Your task to perform on an android device: Open location settings Image 0: 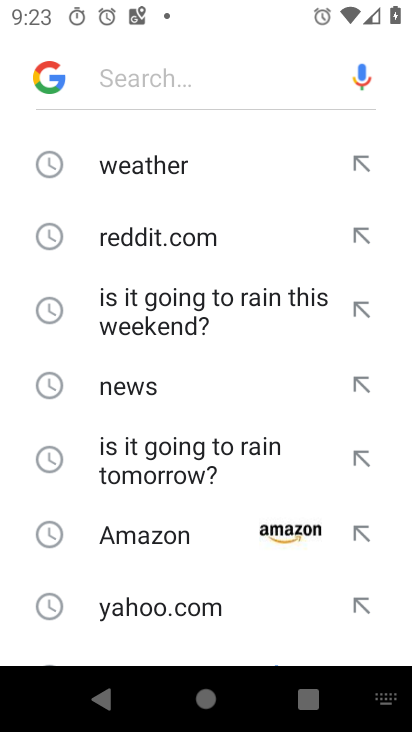
Step 0: press back button
Your task to perform on an android device: Open location settings Image 1: 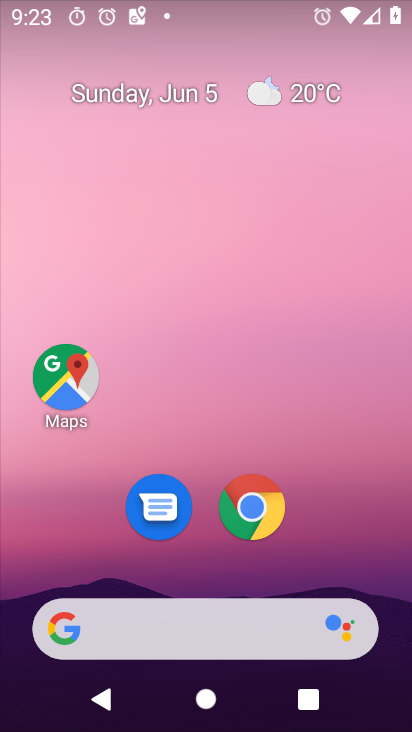
Step 1: drag from (328, 531) to (227, 19)
Your task to perform on an android device: Open location settings Image 2: 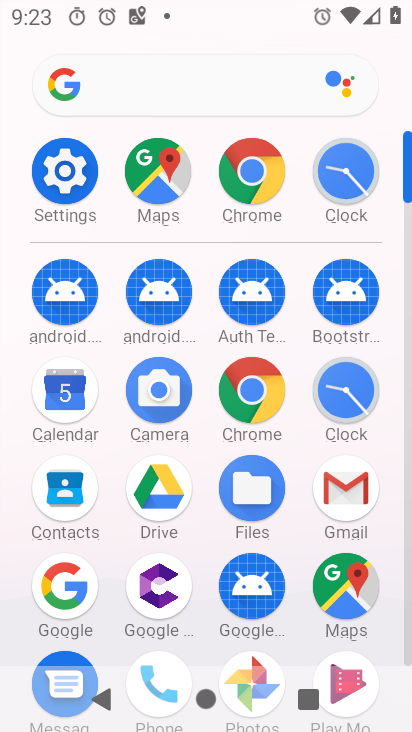
Step 2: drag from (10, 559) to (3, 284)
Your task to perform on an android device: Open location settings Image 3: 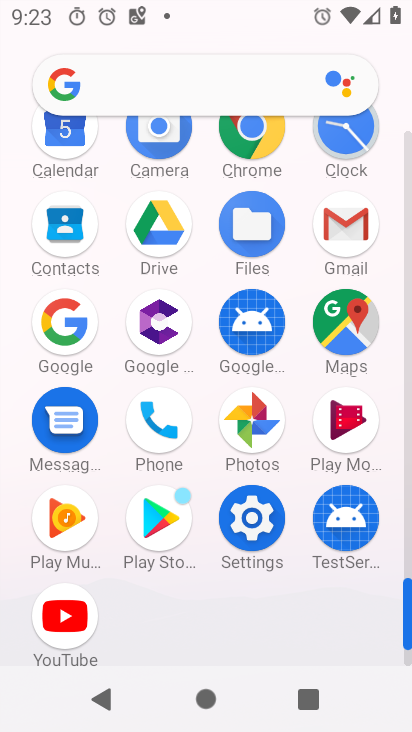
Step 3: click (250, 515)
Your task to perform on an android device: Open location settings Image 4: 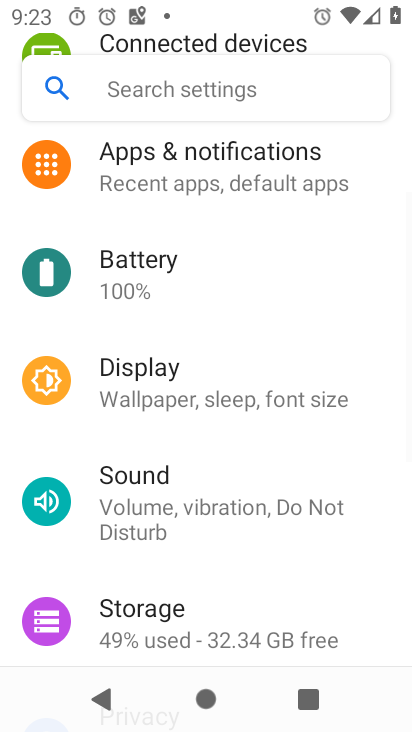
Step 4: drag from (244, 197) to (281, 598)
Your task to perform on an android device: Open location settings Image 5: 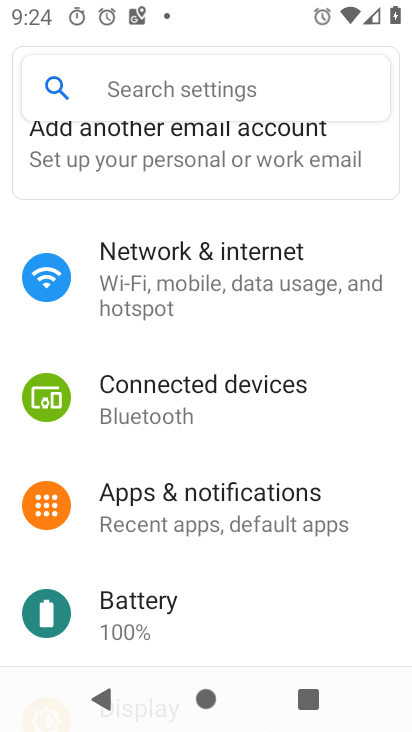
Step 5: drag from (253, 587) to (233, 264)
Your task to perform on an android device: Open location settings Image 6: 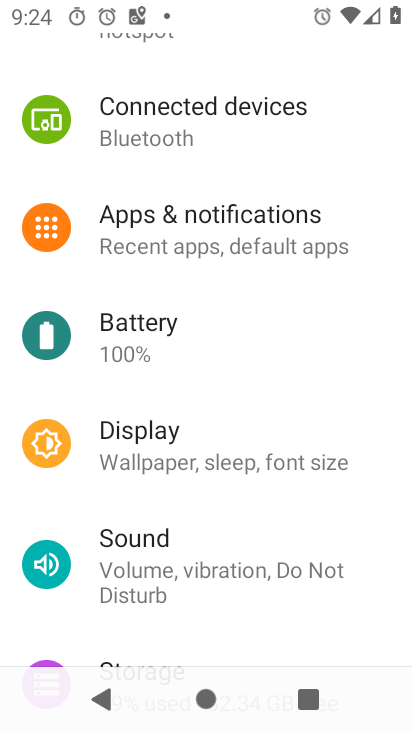
Step 6: drag from (216, 558) to (221, 204)
Your task to perform on an android device: Open location settings Image 7: 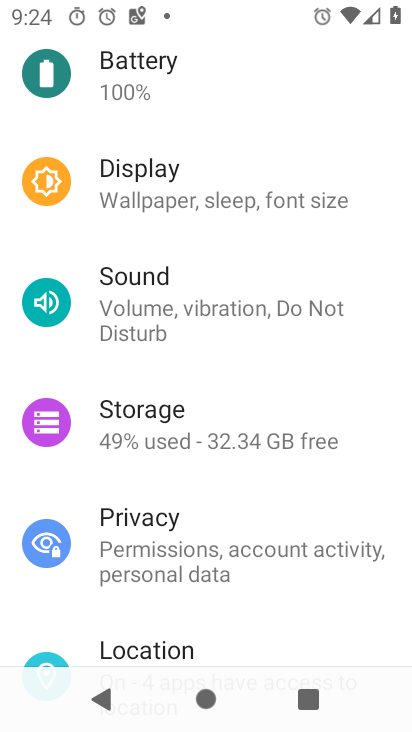
Step 7: drag from (239, 611) to (248, 299)
Your task to perform on an android device: Open location settings Image 8: 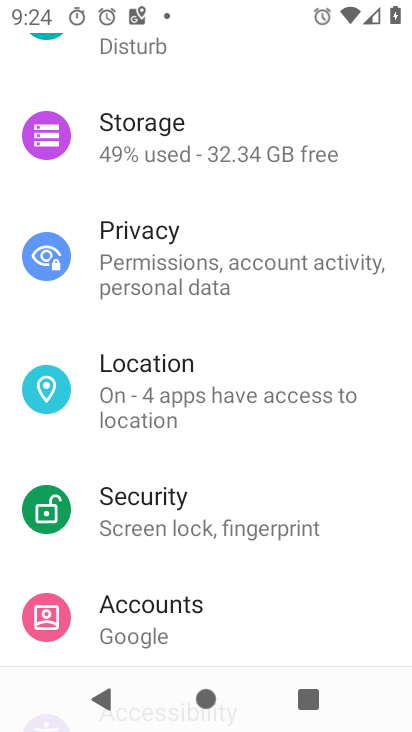
Step 8: click (198, 375)
Your task to perform on an android device: Open location settings Image 9: 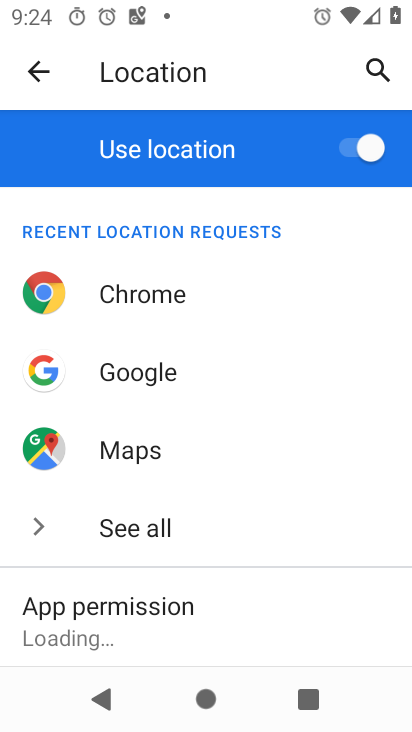
Step 9: drag from (207, 539) to (225, 172)
Your task to perform on an android device: Open location settings Image 10: 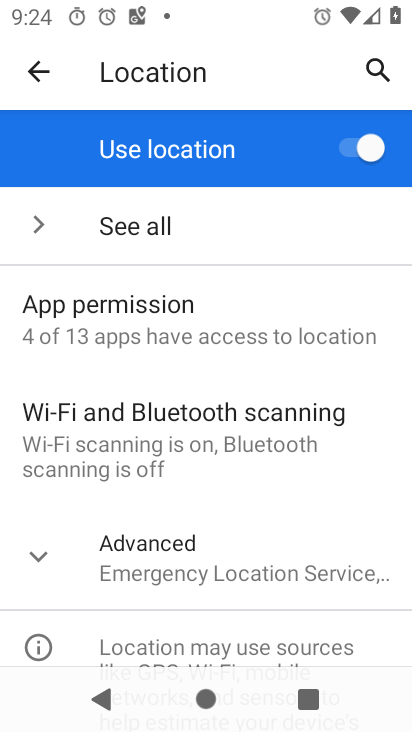
Step 10: click (49, 558)
Your task to perform on an android device: Open location settings Image 11: 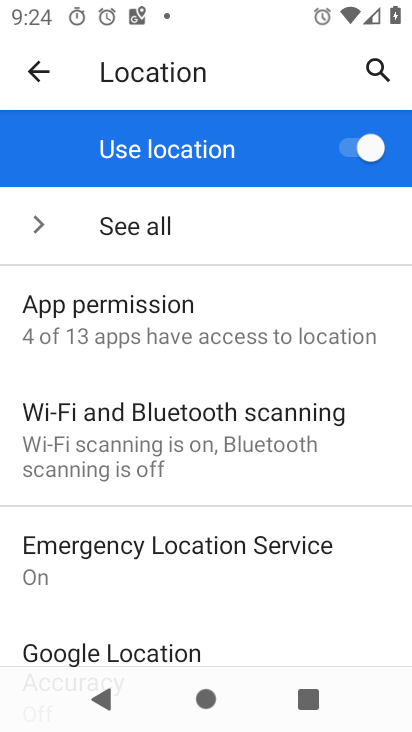
Step 11: task complete